Your task to perform on an android device: set an alarm Image 0: 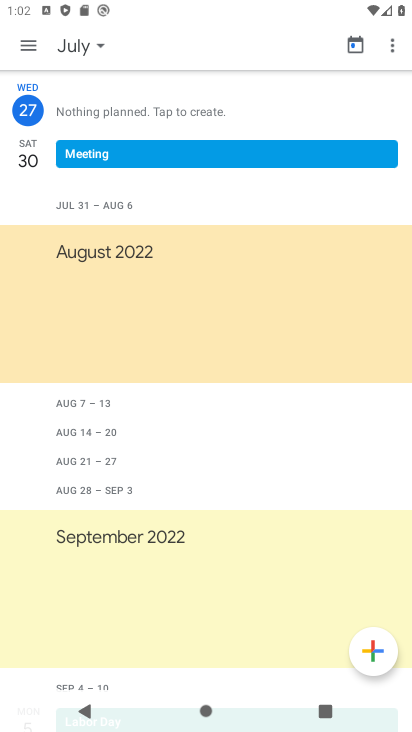
Step 0: press home button
Your task to perform on an android device: set an alarm Image 1: 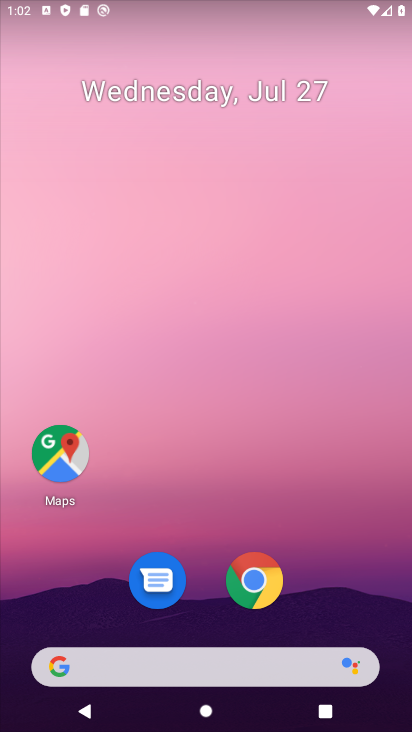
Step 1: drag from (260, 698) to (313, 194)
Your task to perform on an android device: set an alarm Image 2: 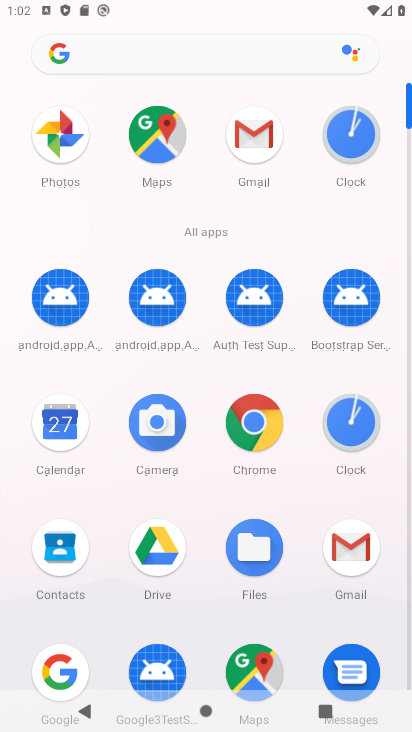
Step 2: click (361, 418)
Your task to perform on an android device: set an alarm Image 3: 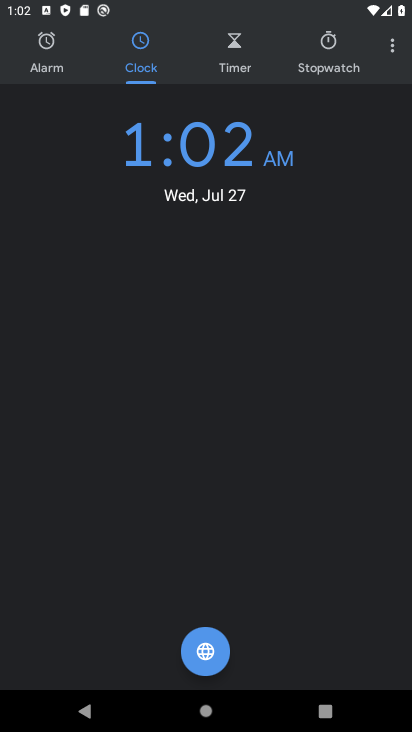
Step 3: click (74, 70)
Your task to perform on an android device: set an alarm Image 4: 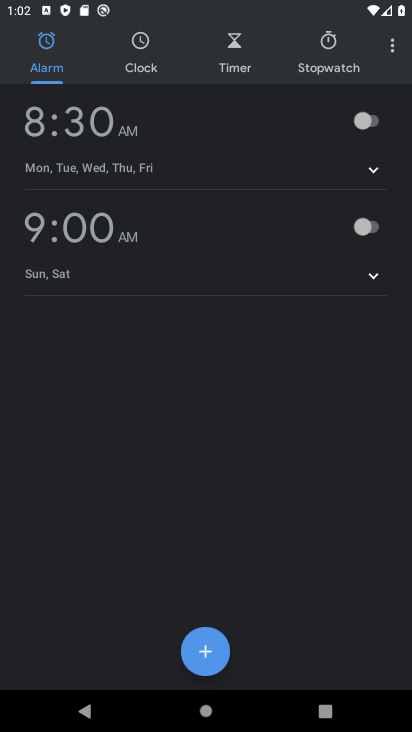
Step 4: click (373, 126)
Your task to perform on an android device: set an alarm Image 5: 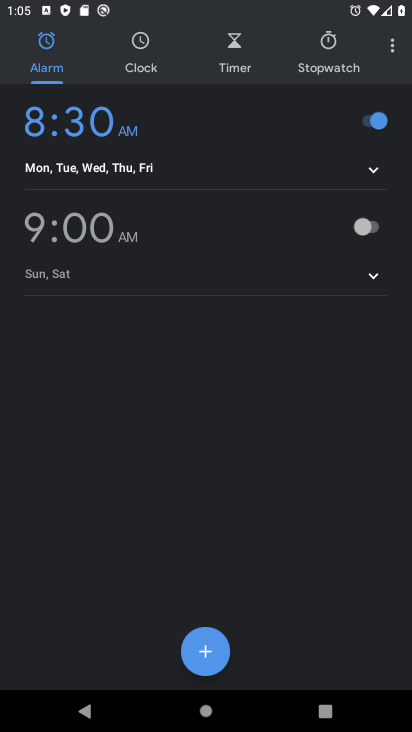
Step 5: task complete